Your task to perform on an android device: turn on data saver in the chrome app Image 0: 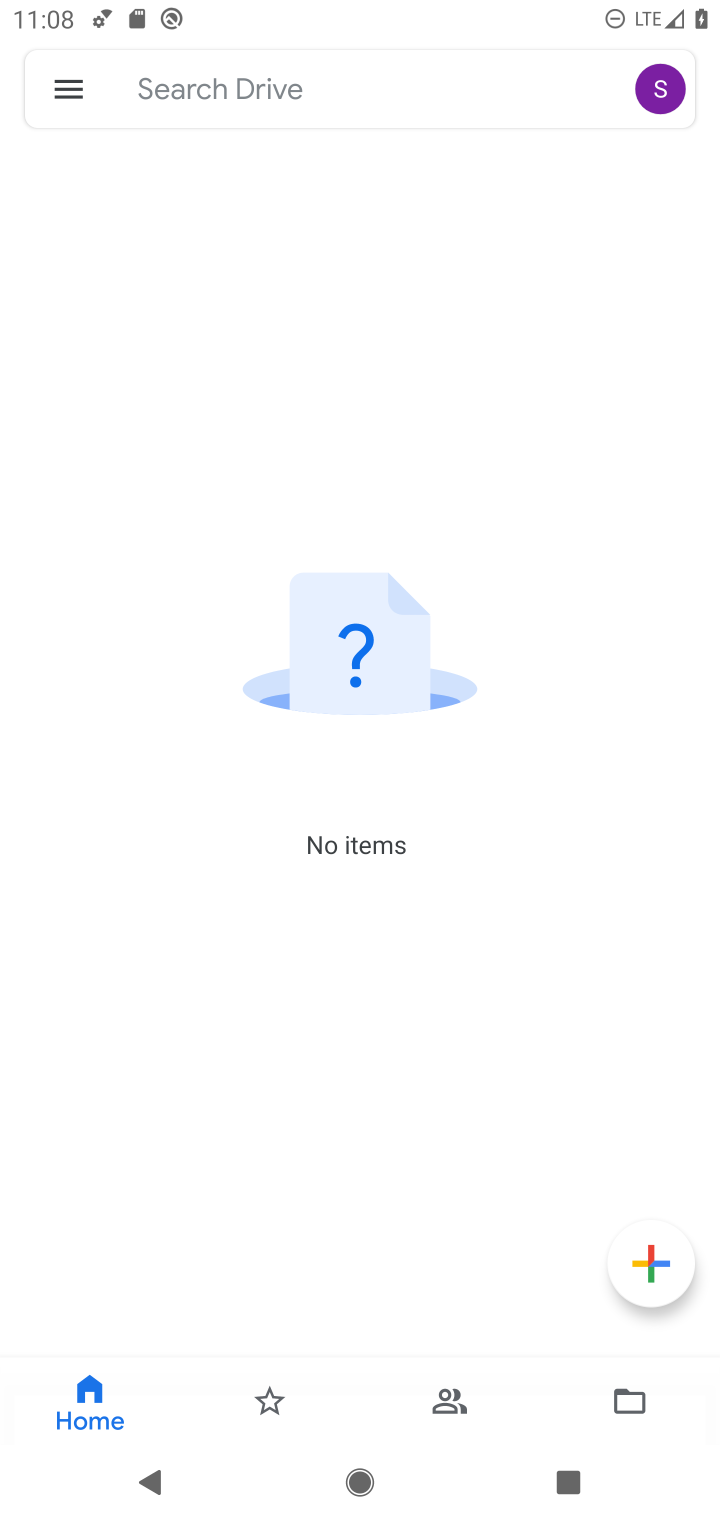
Step 0: press home button
Your task to perform on an android device: turn on data saver in the chrome app Image 1: 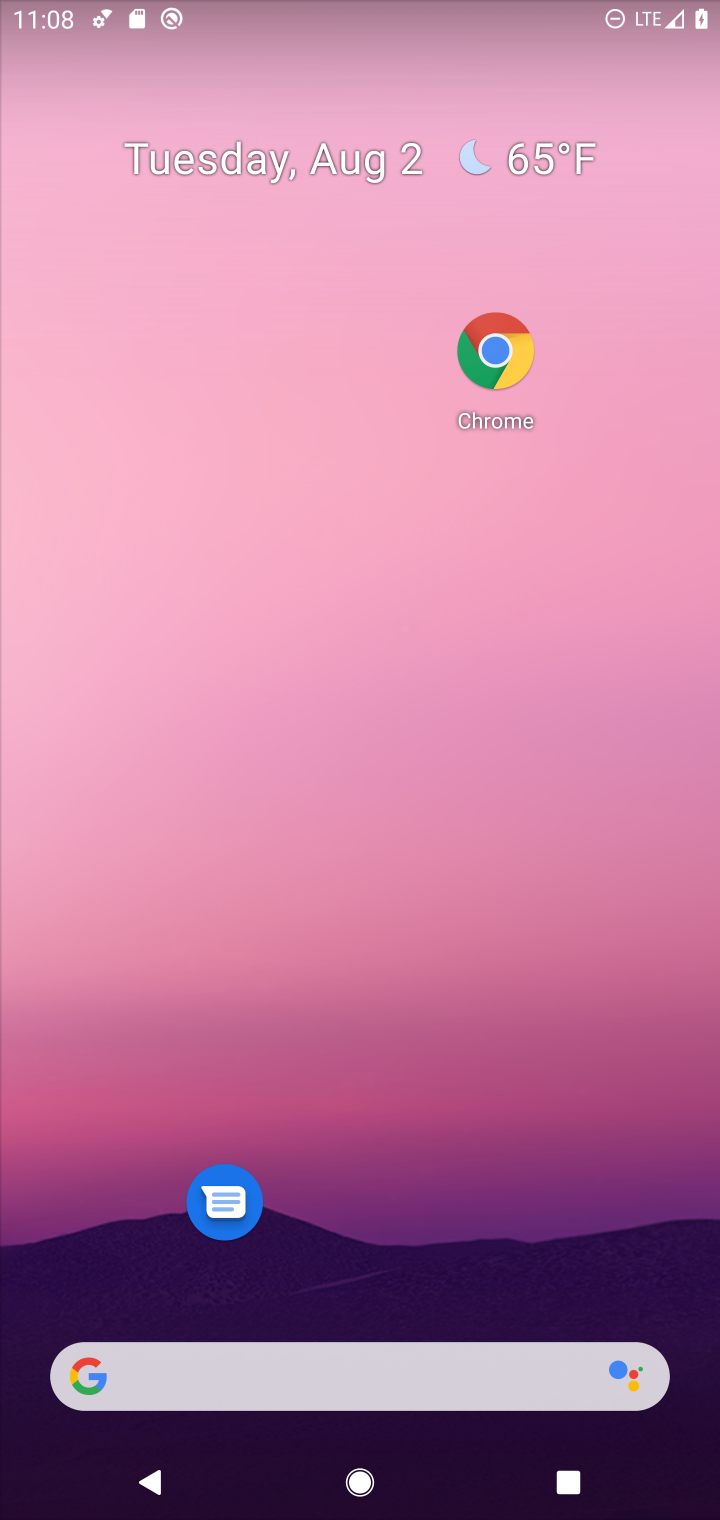
Step 1: click (505, 353)
Your task to perform on an android device: turn on data saver in the chrome app Image 2: 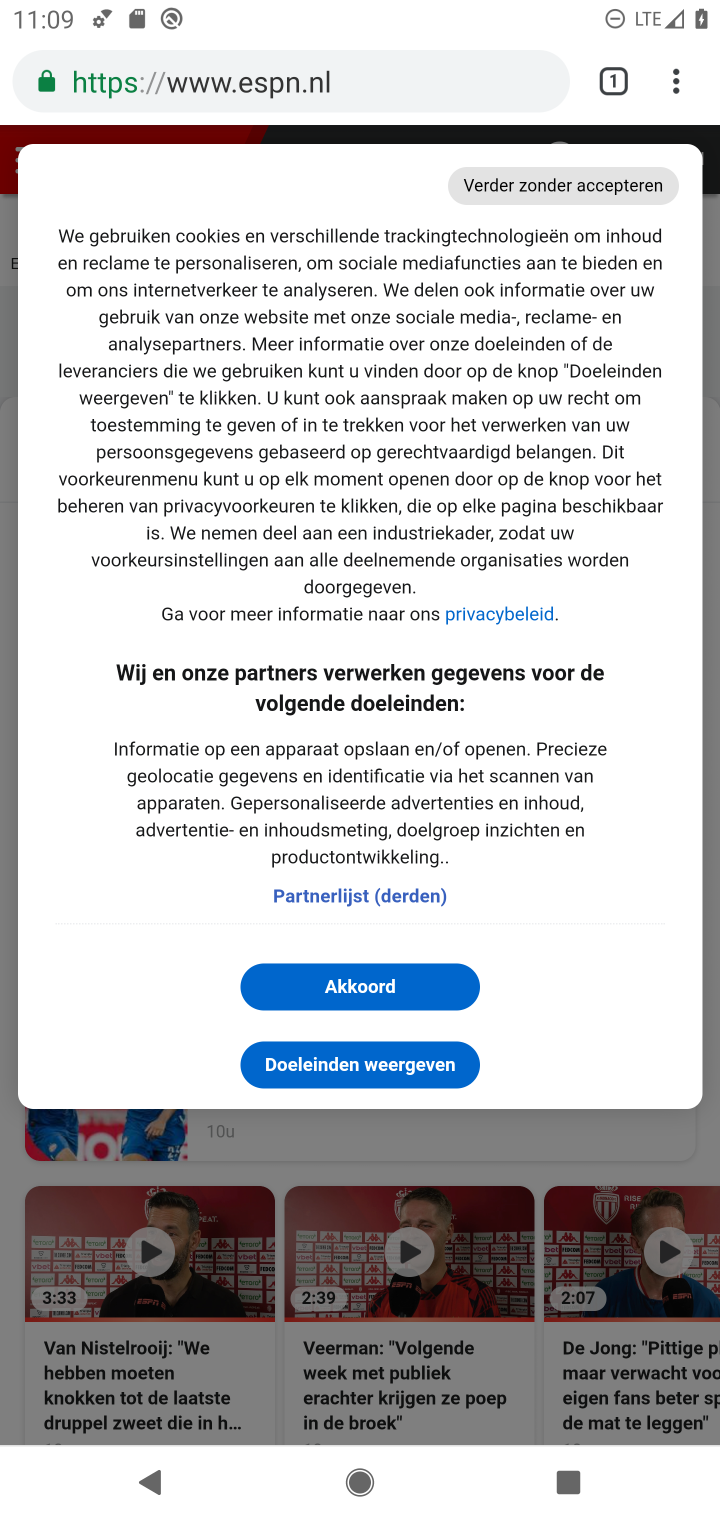
Step 2: drag from (676, 86) to (411, 997)
Your task to perform on an android device: turn on data saver in the chrome app Image 3: 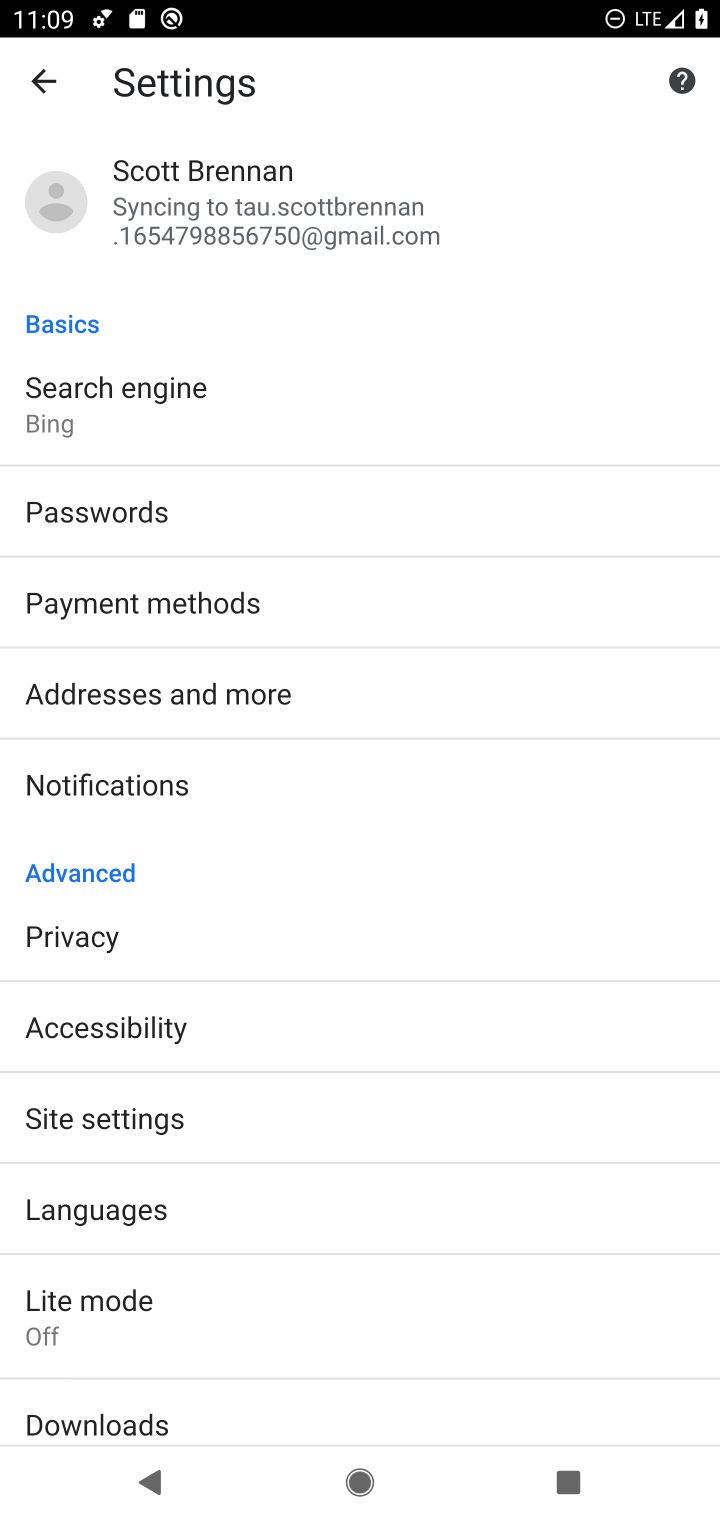
Step 3: click (116, 1316)
Your task to perform on an android device: turn on data saver in the chrome app Image 4: 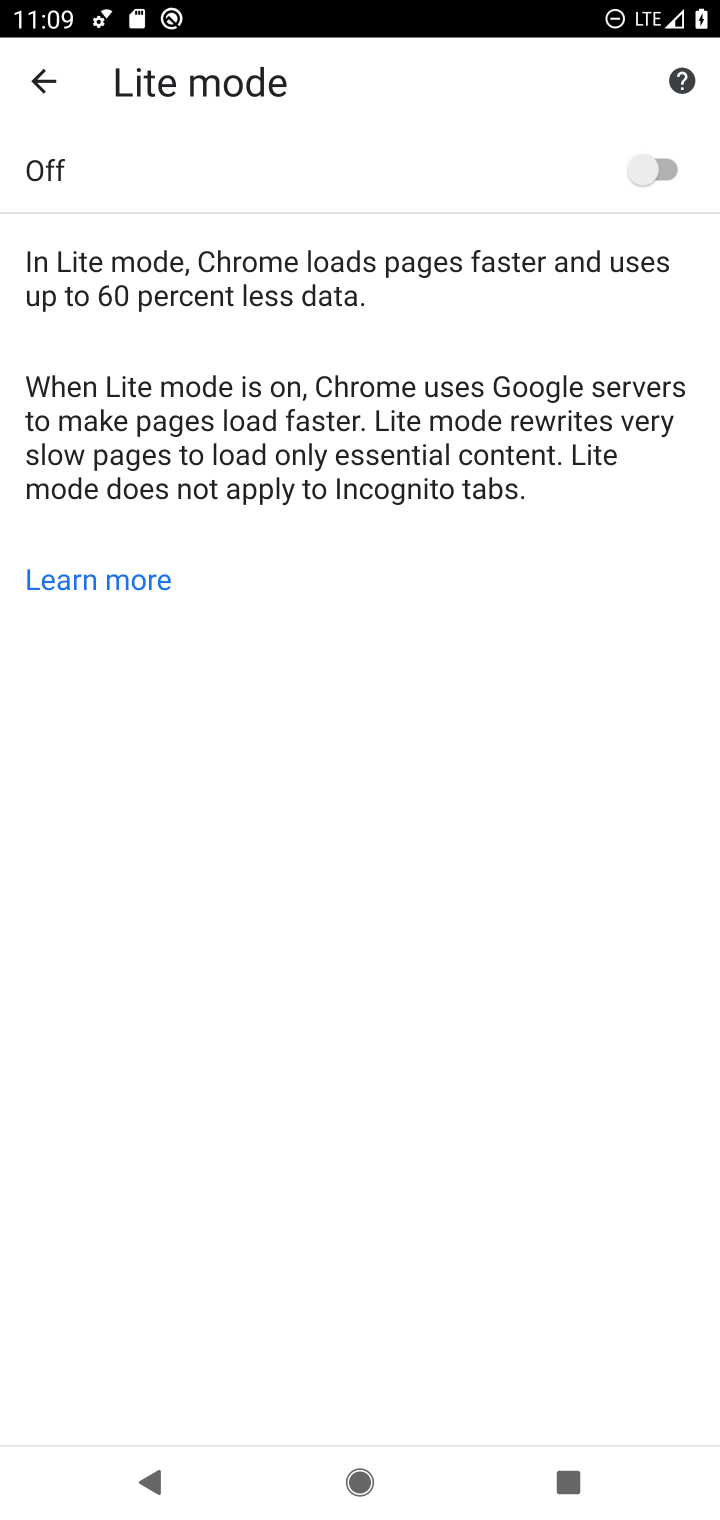
Step 4: click (634, 163)
Your task to perform on an android device: turn on data saver in the chrome app Image 5: 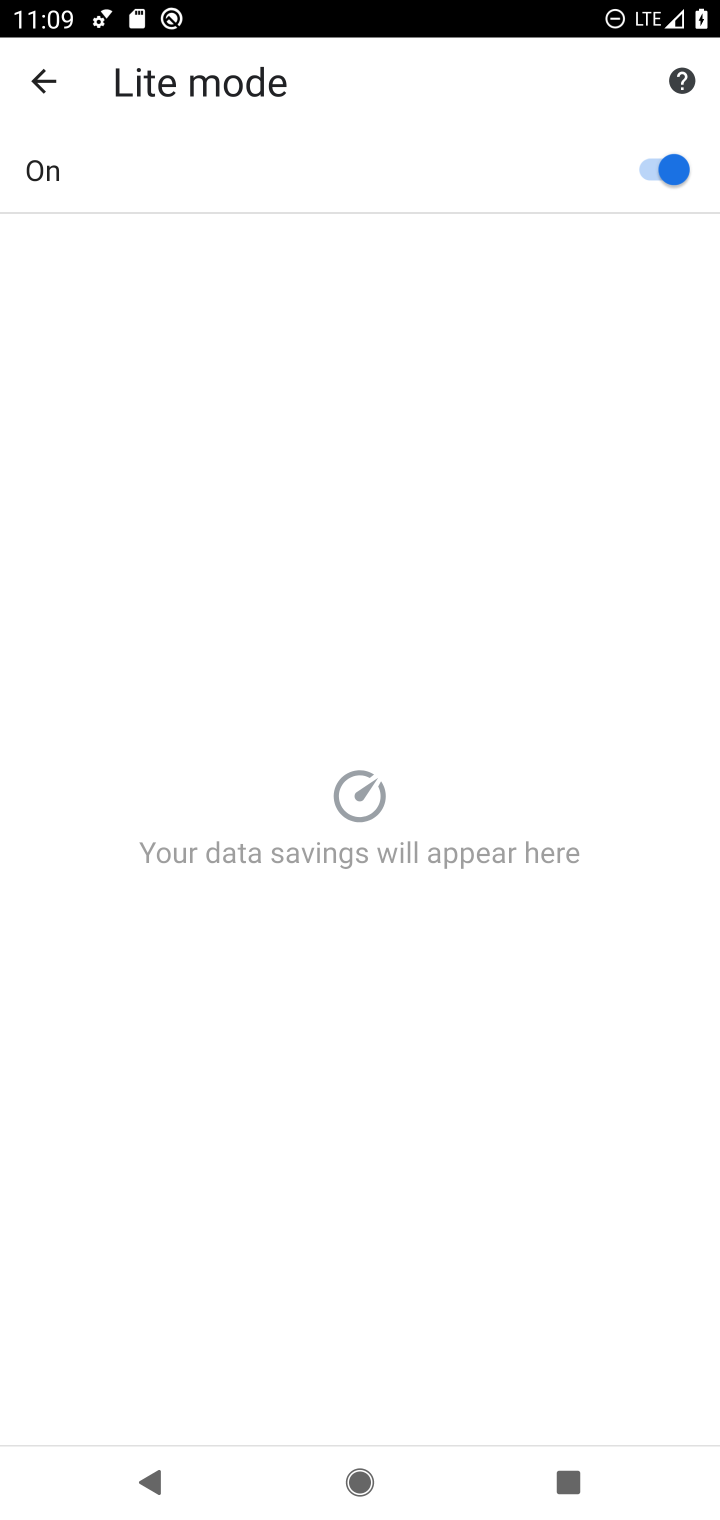
Step 5: task complete